Your task to perform on an android device: Show me popular games on the Play Store Image 0: 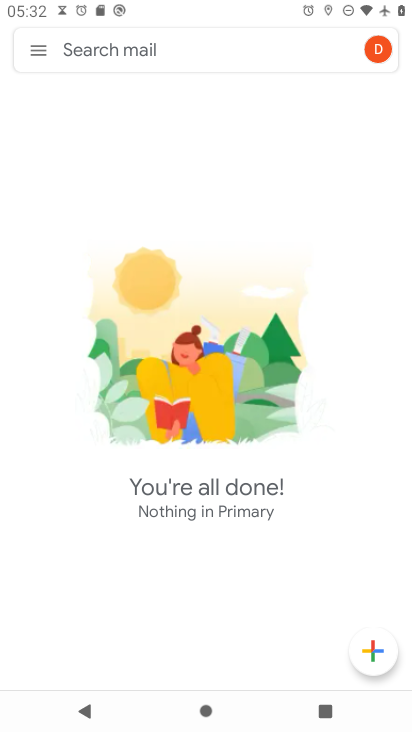
Step 0: press back button
Your task to perform on an android device: Show me popular games on the Play Store Image 1: 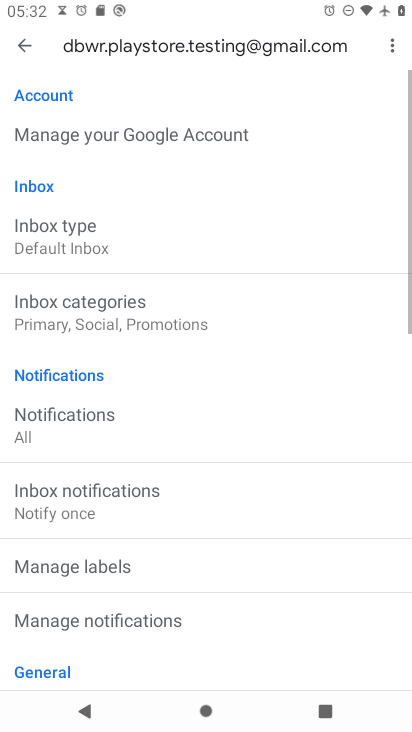
Step 1: press back button
Your task to perform on an android device: Show me popular games on the Play Store Image 2: 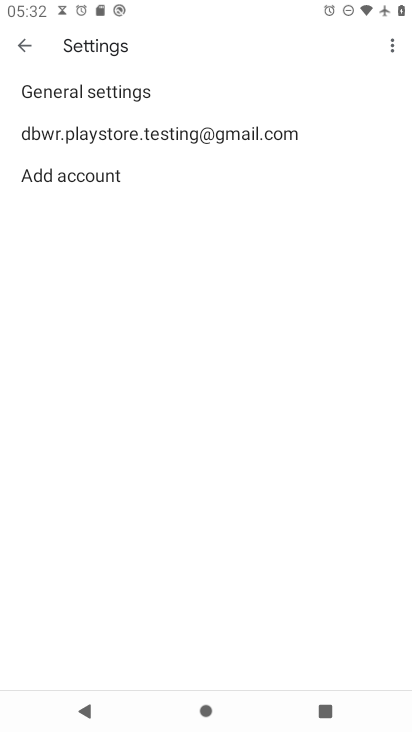
Step 2: press back button
Your task to perform on an android device: Show me popular games on the Play Store Image 3: 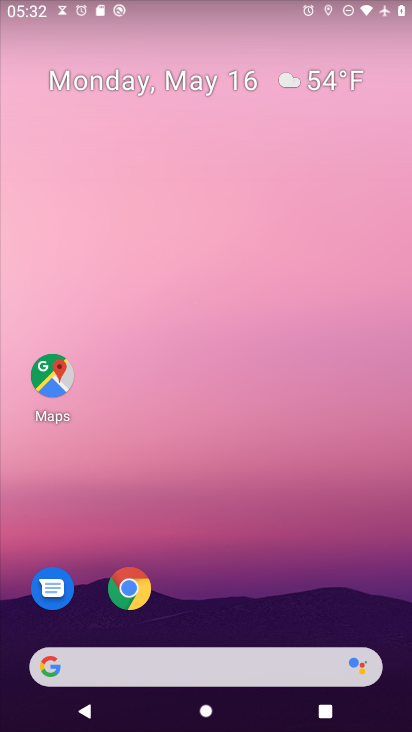
Step 3: drag from (227, 521) to (176, 25)
Your task to perform on an android device: Show me popular games on the Play Store Image 4: 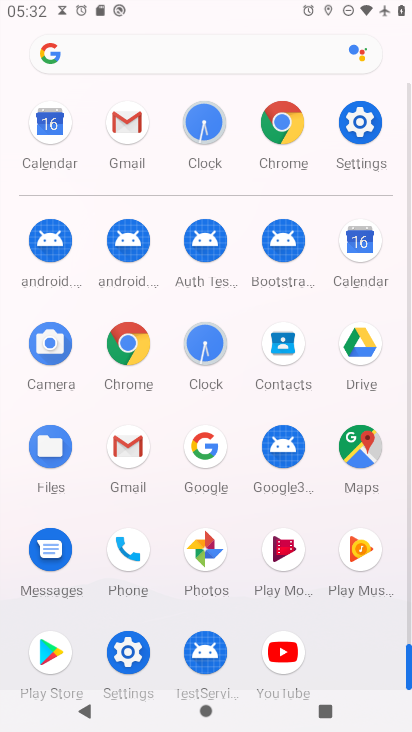
Step 4: drag from (13, 420) to (17, 129)
Your task to perform on an android device: Show me popular games on the Play Store Image 5: 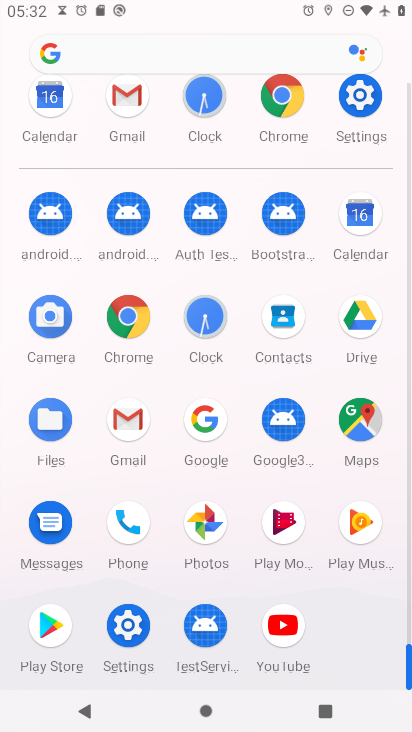
Step 5: click (49, 620)
Your task to perform on an android device: Show me popular games on the Play Store Image 6: 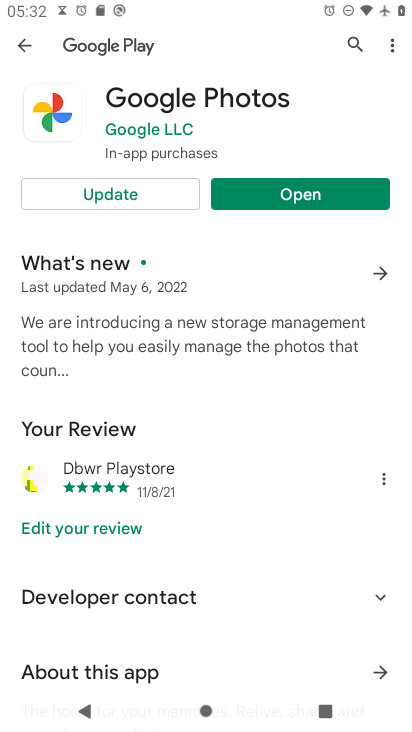
Step 6: click (23, 46)
Your task to perform on an android device: Show me popular games on the Play Store Image 7: 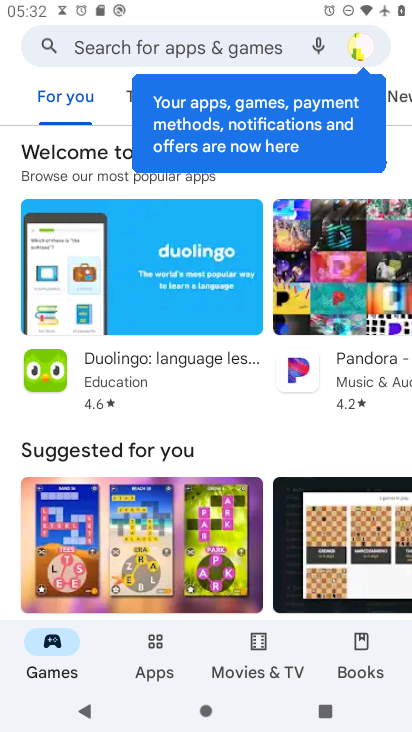
Step 7: task complete